Your task to perform on an android device: open app "Nova Launcher" (install if not already installed) Image 0: 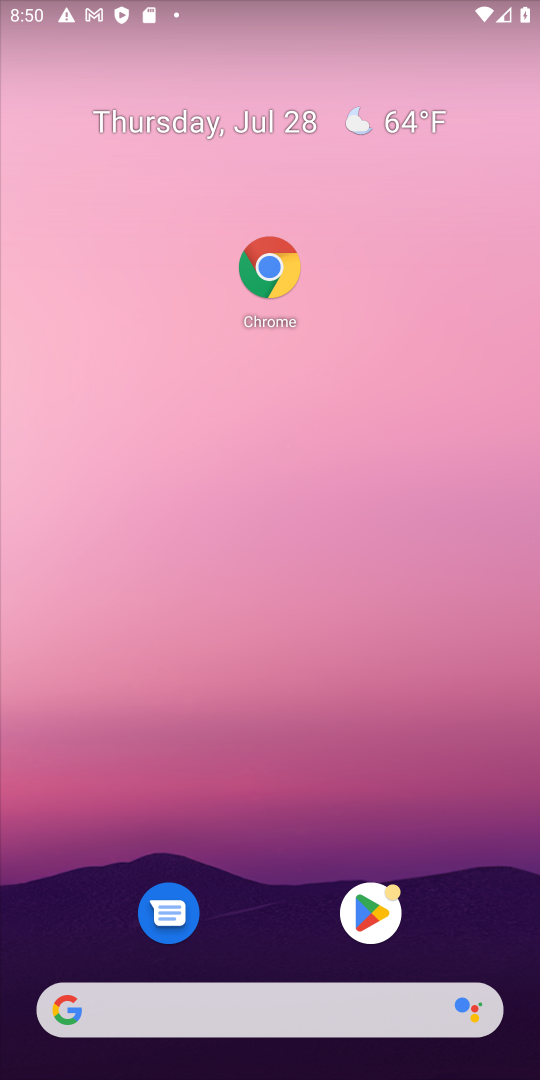
Step 0: click (370, 932)
Your task to perform on an android device: open app "Nova Launcher" (install if not already installed) Image 1: 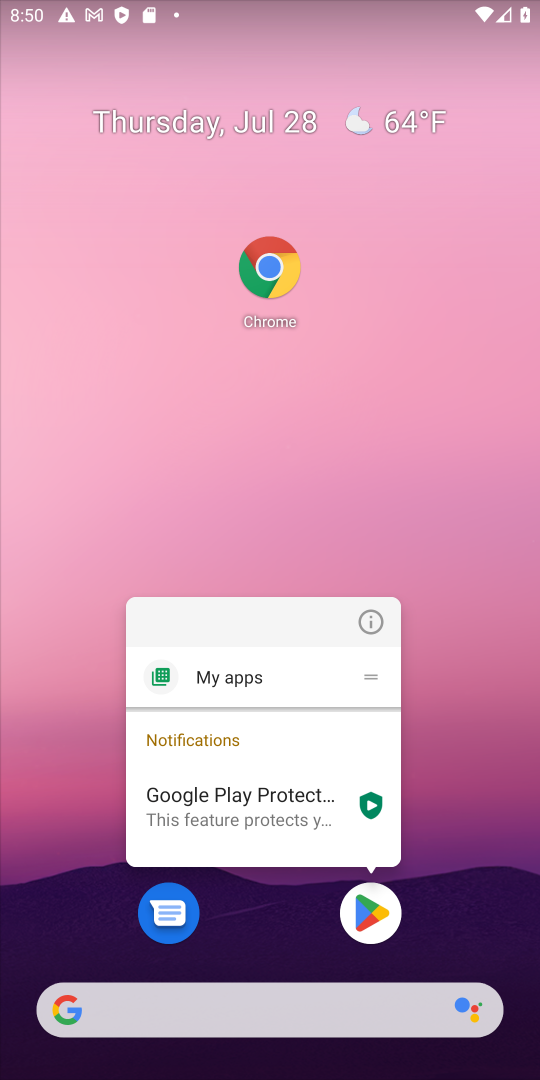
Step 1: click (366, 912)
Your task to perform on an android device: open app "Nova Launcher" (install if not already installed) Image 2: 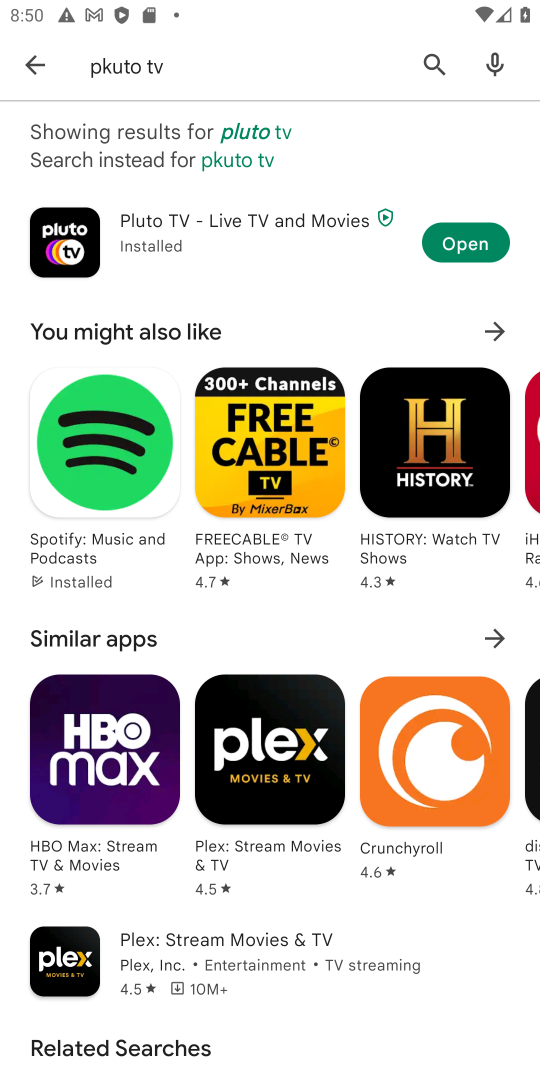
Step 2: click (442, 72)
Your task to perform on an android device: open app "Nova Launcher" (install if not already installed) Image 3: 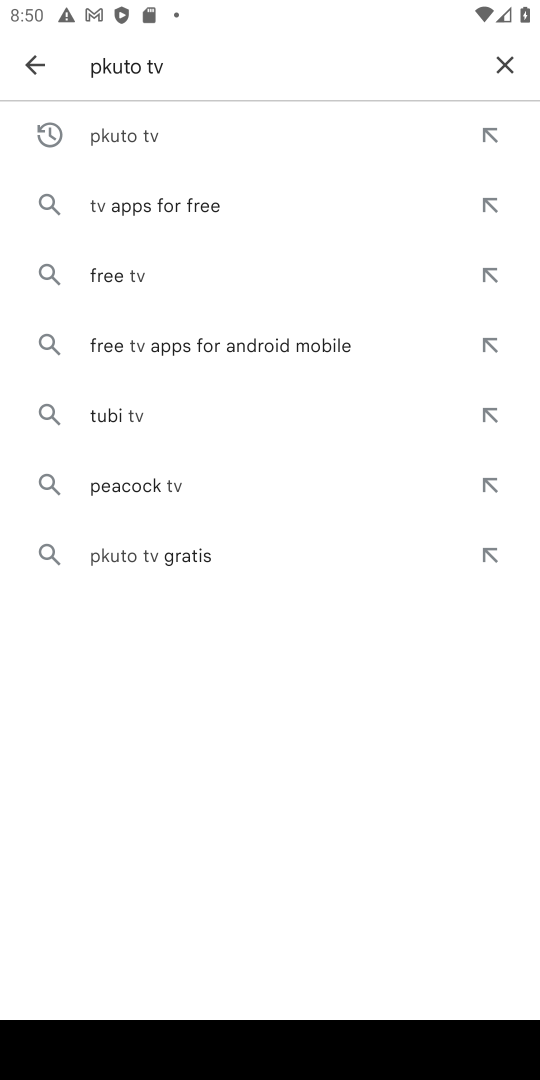
Step 3: click (506, 57)
Your task to perform on an android device: open app "Nova Launcher" (install if not already installed) Image 4: 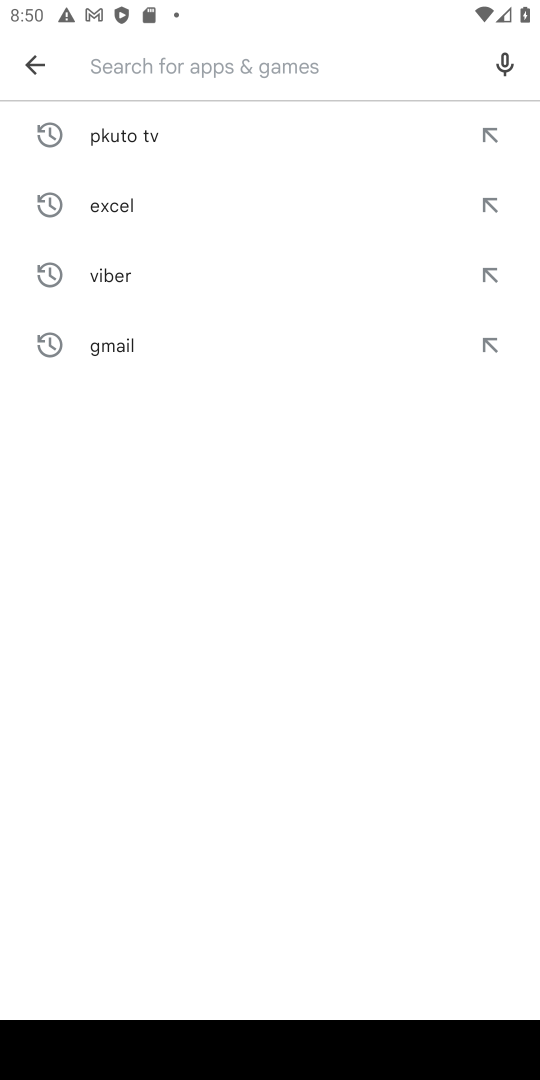
Step 4: drag from (497, 1063) to (374, 783)
Your task to perform on an android device: open app "Nova Launcher" (install if not already installed) Image 5: 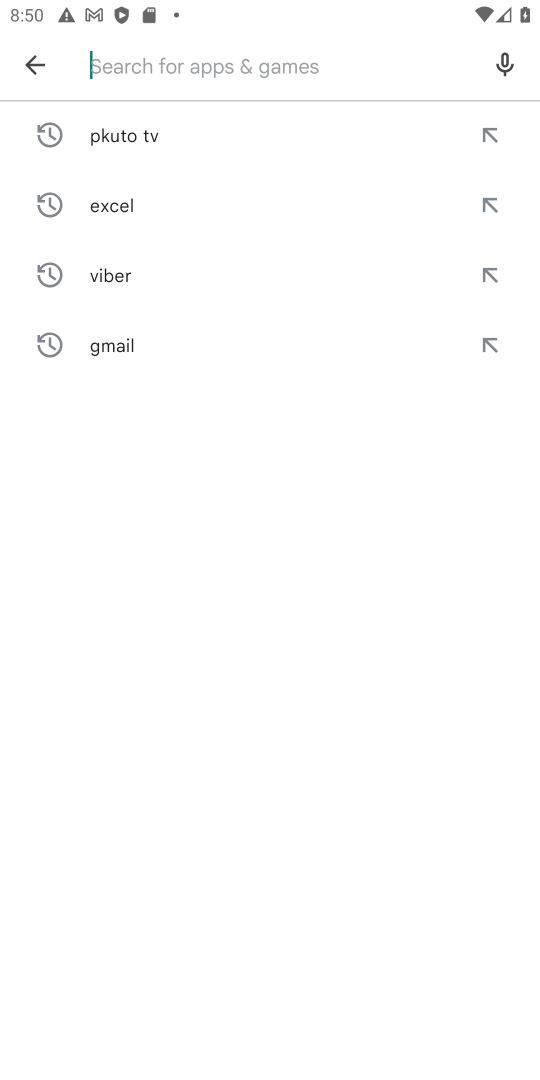
Step 5: type "nova"
Your task to perform on an android device: open app "Nova Launcher" (install if not already installed) Image 6: 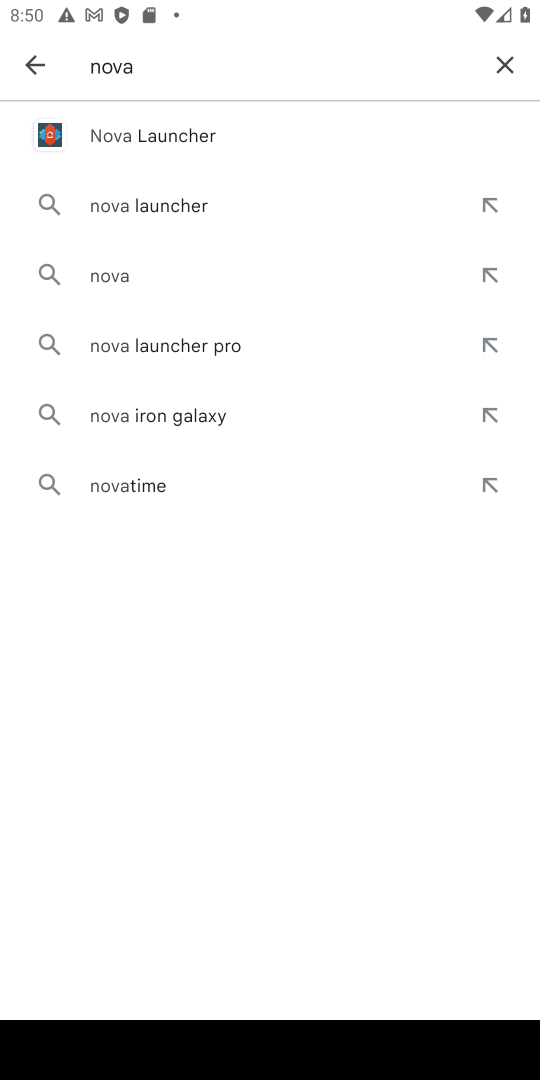
Step 6: click (217, 146)
Your task to perform on an android device: open app "Nova Launcher" (install if not already installed) Image 7: 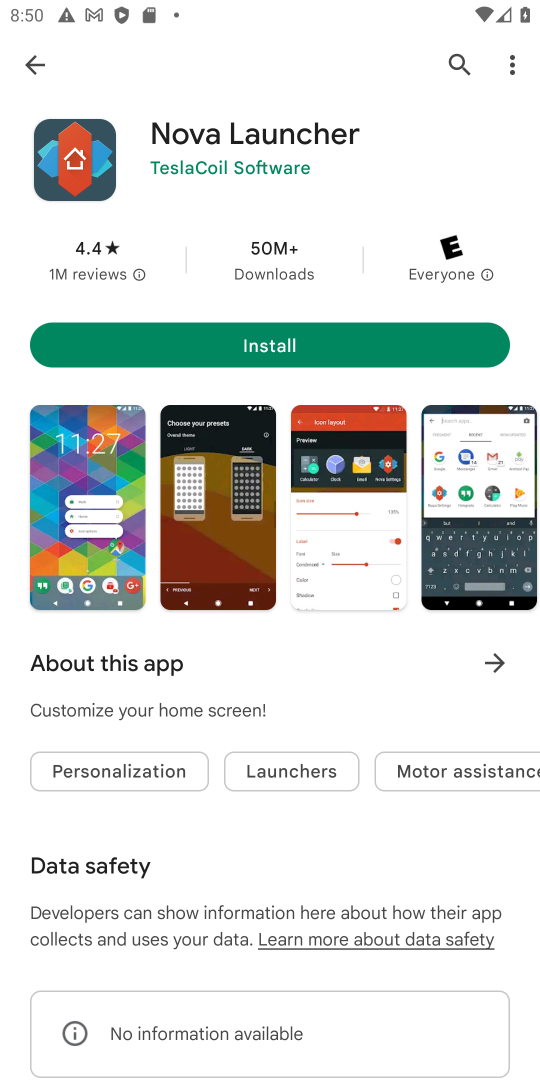
Step 7: click (355, 346)
Your task to perform on an android device: open app "Nova Launcher" (install if not already installed) Image 8: 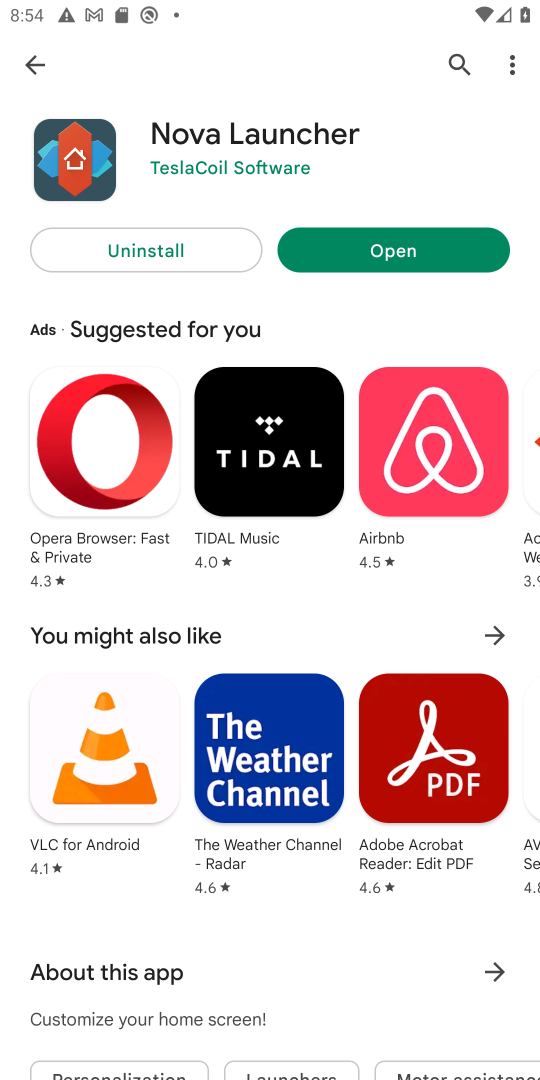
Step 8: click (382, 238)
Your task to perform on an android device: open app "Nova Launcher" (install if not already installed) Image 9: 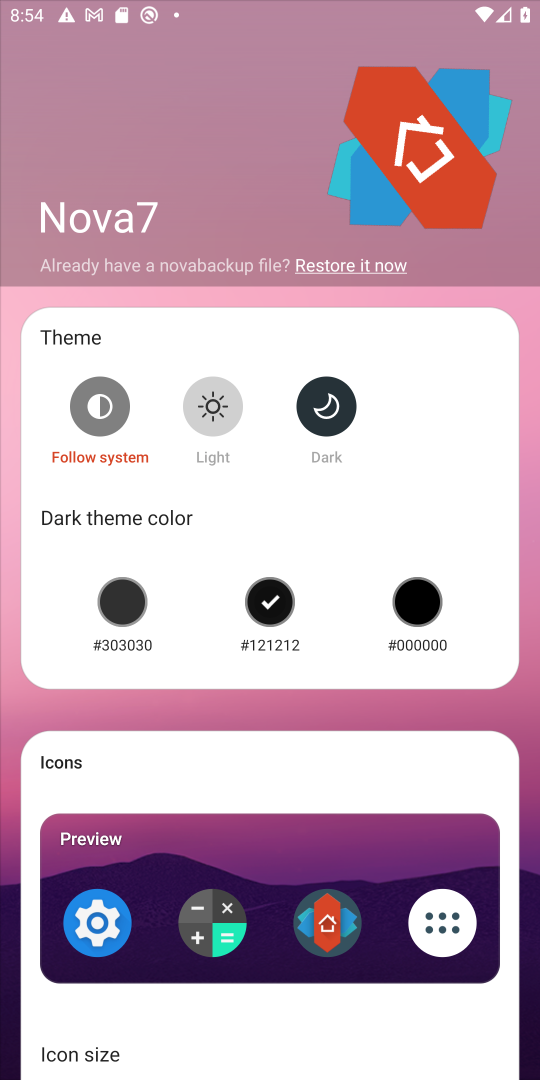
Step 9: task complete